Your task to perform on an android device: toggle sleep mode Image 0: 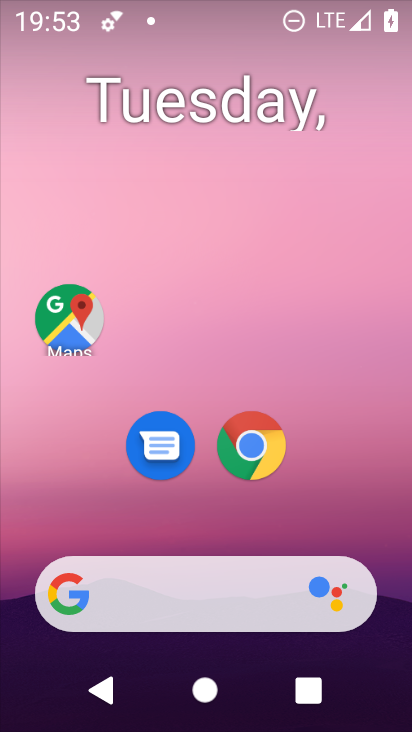
Step 0: drag from (236, 528) to (236, 116)
Your task to perform on an android device: toggle sleep mode Image 1: 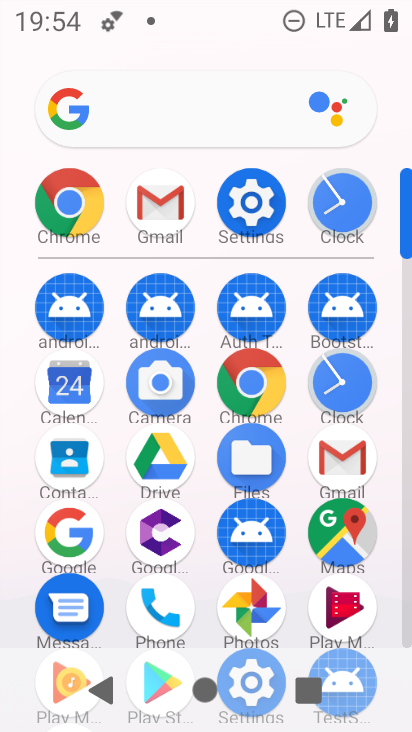
Step 1: task complete